Your task to perform on an android device: Go to Amazon Image 0: 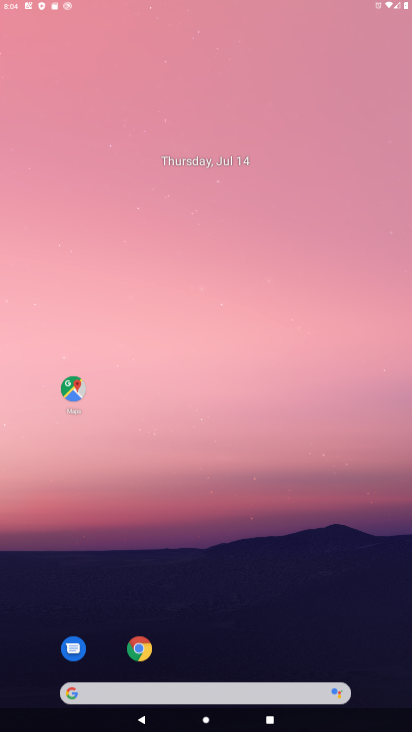
Step 0: press home button
Your task to perform on an android device: Go to Amazon Image 1: 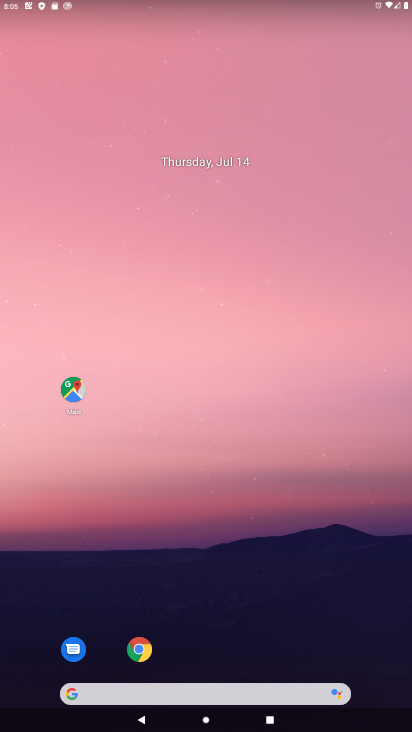
Step 1: drag from (212, 661) to (222, 24)
Your task to perform on an android device: Go to Amazon Image 2: 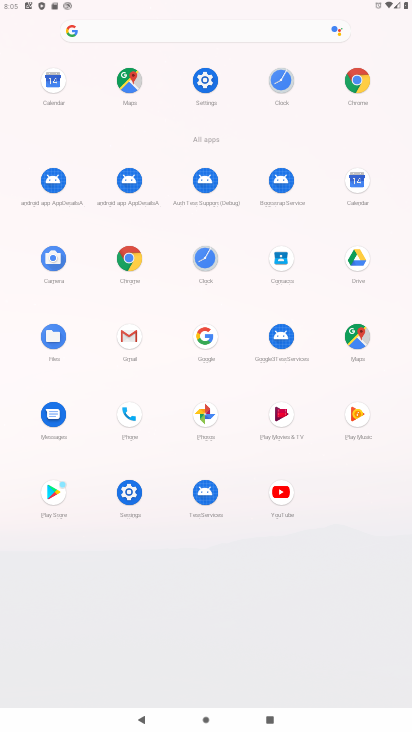
Step 2: click (354, 74)
Your task to perform on an android device: Go to Amazon Image 3: 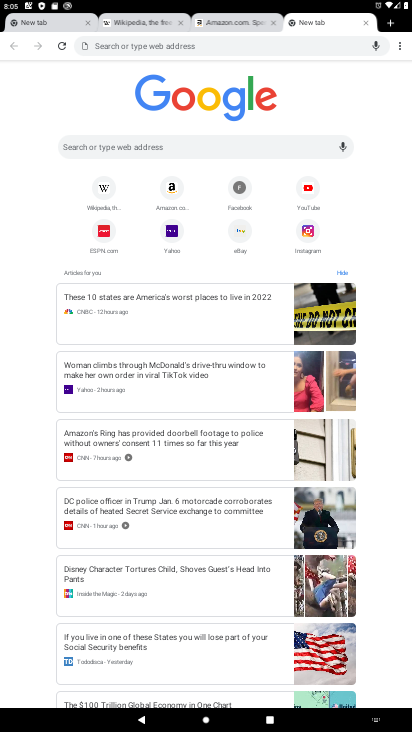
Step 3: click (171, 182)
Your task to perform on an android device: Go to Amazon Image 4: 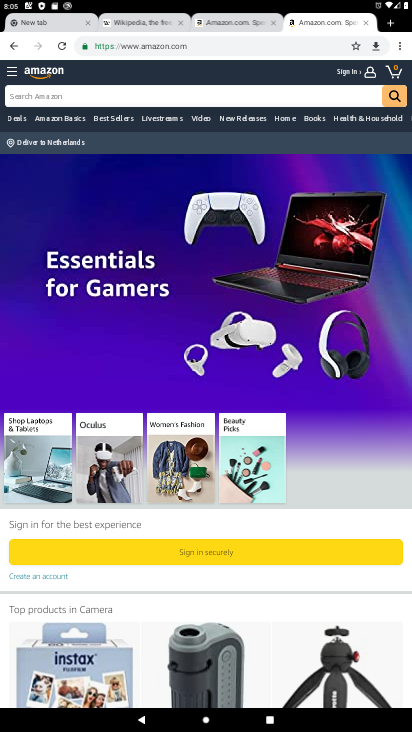
Step 4: task complete